Your task to perform on an android device: Search for pizza restaurants on Maps Image 0: 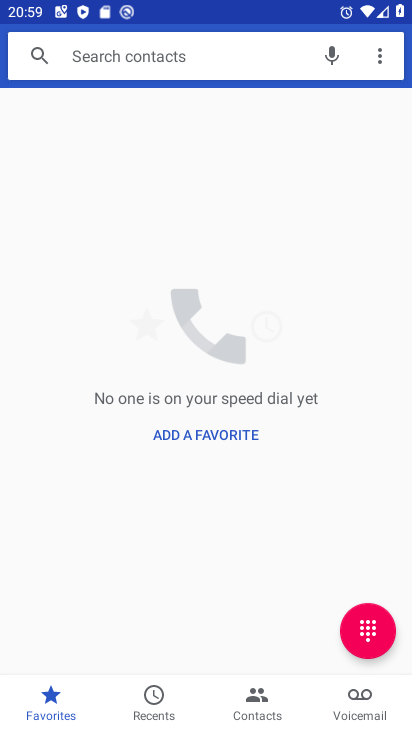
Step 0: press home button
Your task to perform on an android device: Search for pizza restaurants on Maps Image 1: 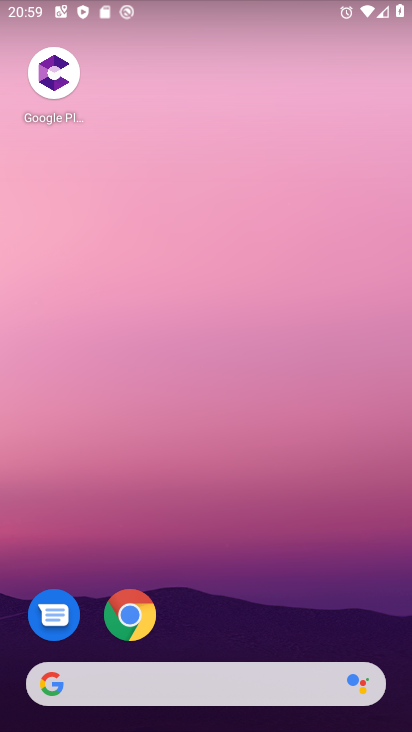
Step 1: drag from (260, 612) to (269, 66)
Your task to perform on an android device: Search for pizza restaurants on Maps Image 2: 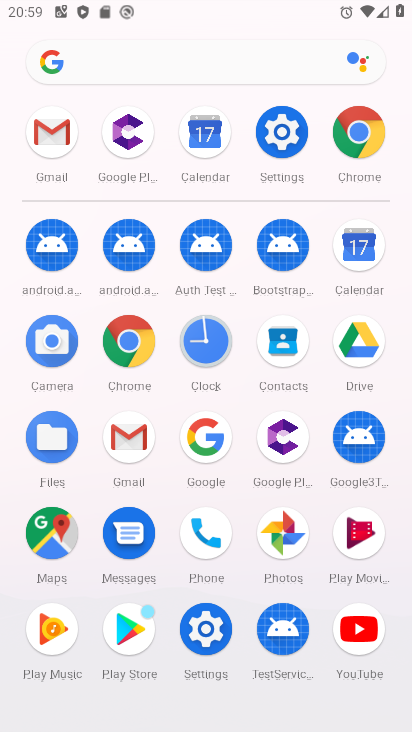
Step 2: click (44, 535)
Your task to perform on an android device: Search for pizza restaurants on Maps Image 3: 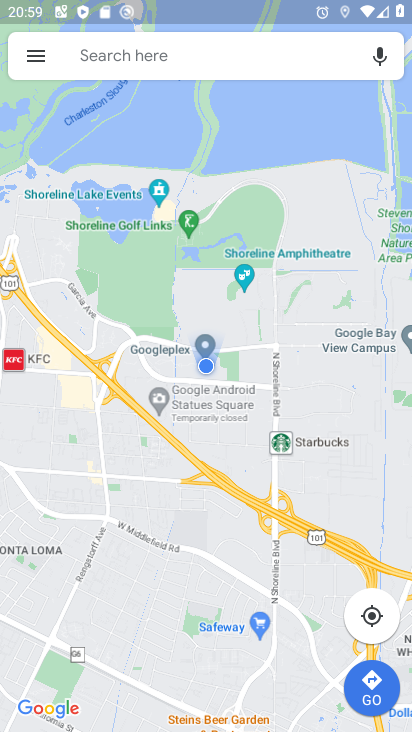
Step 3: click (185, 53)
Your task to perform on an android device: Search for pizza restaurants on Maps Image 4: 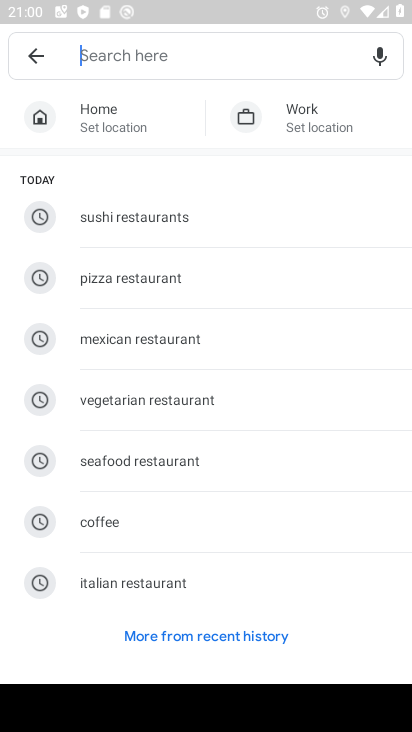
Step 4: type "r pizza restaurants"
Your task to perform on an android device: Search for pizza restaurants on Maps Image 5: 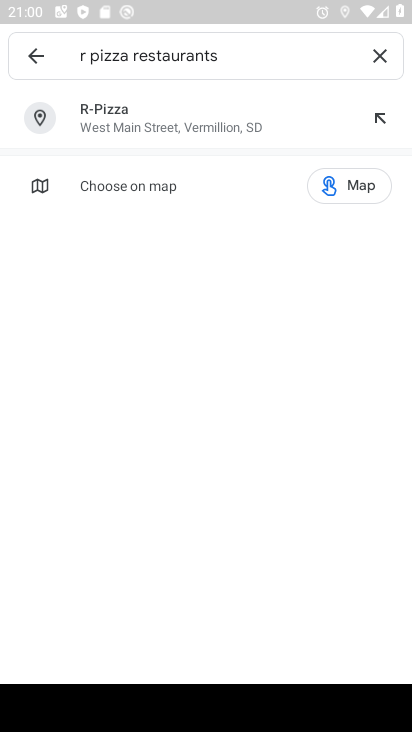
Step 5: click (102, 104)
Your task to perform on an android device: Search for pizza restaurants on Maps Image 6: 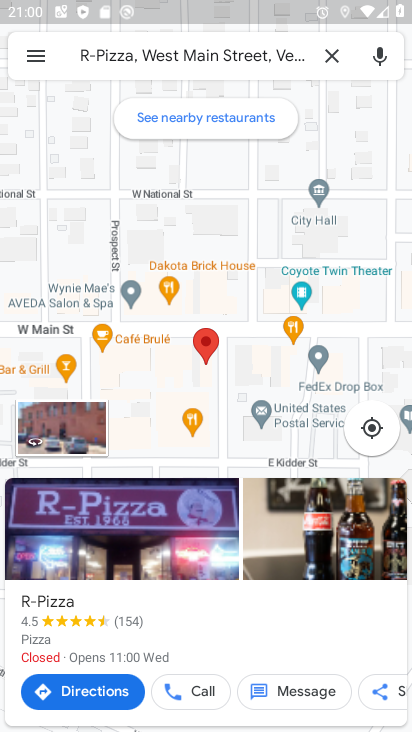
Step 6: task complete